Your task to perform on an android device: What's the news in Trinidad and Tobago? Image 0: 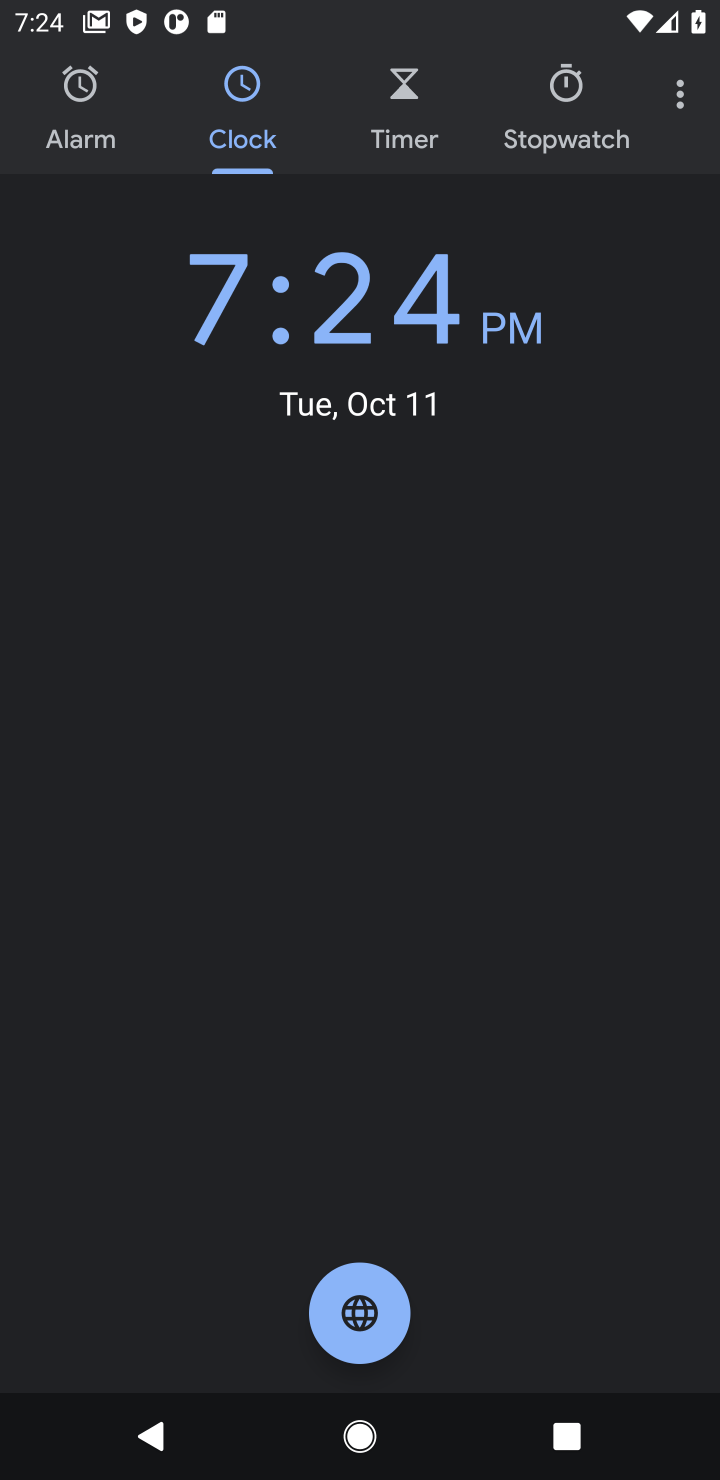
Step 0: press home button
Your task to perform on an android device: What's the news in Trinidad and Tobago? Image 1: 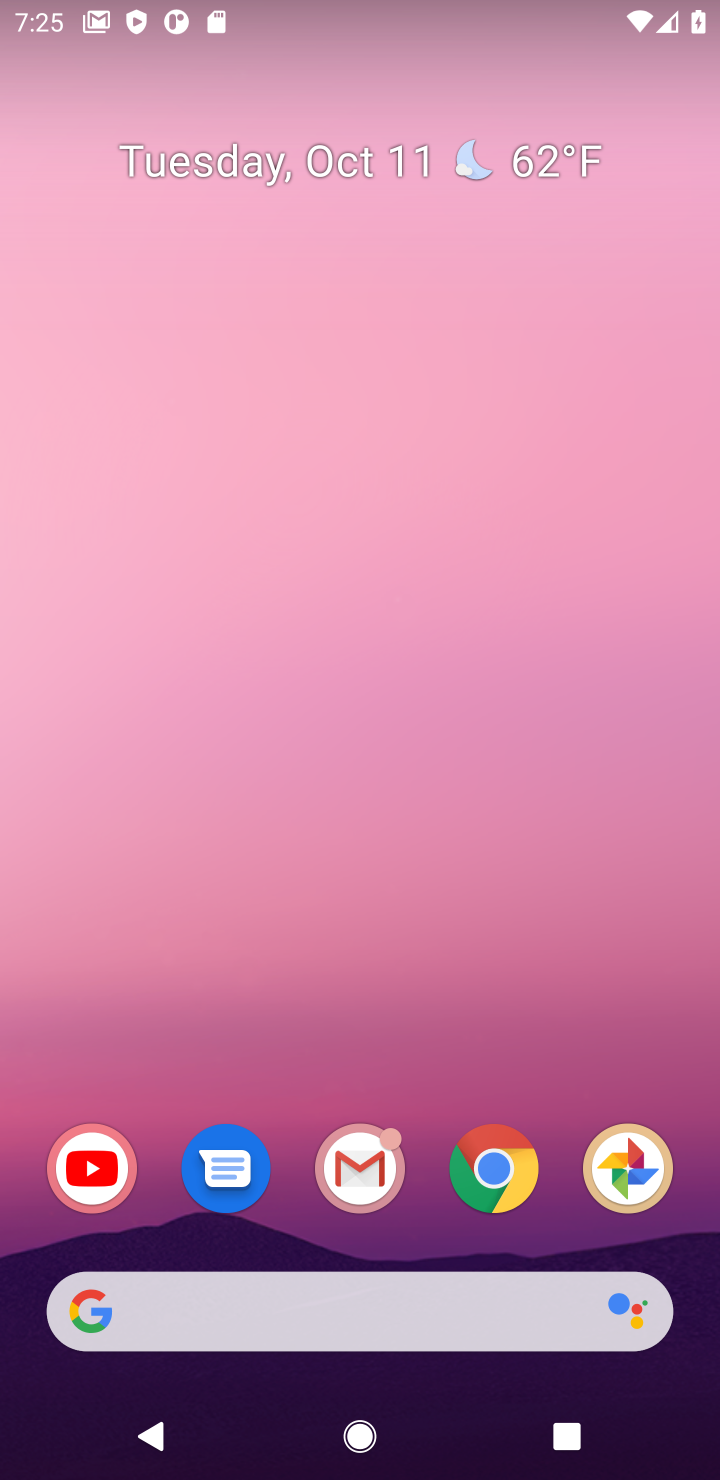
Step 1: click (512, 1194)
Your task to perform on an android device: What's the news in Trinidad and Tobago? Image 2: 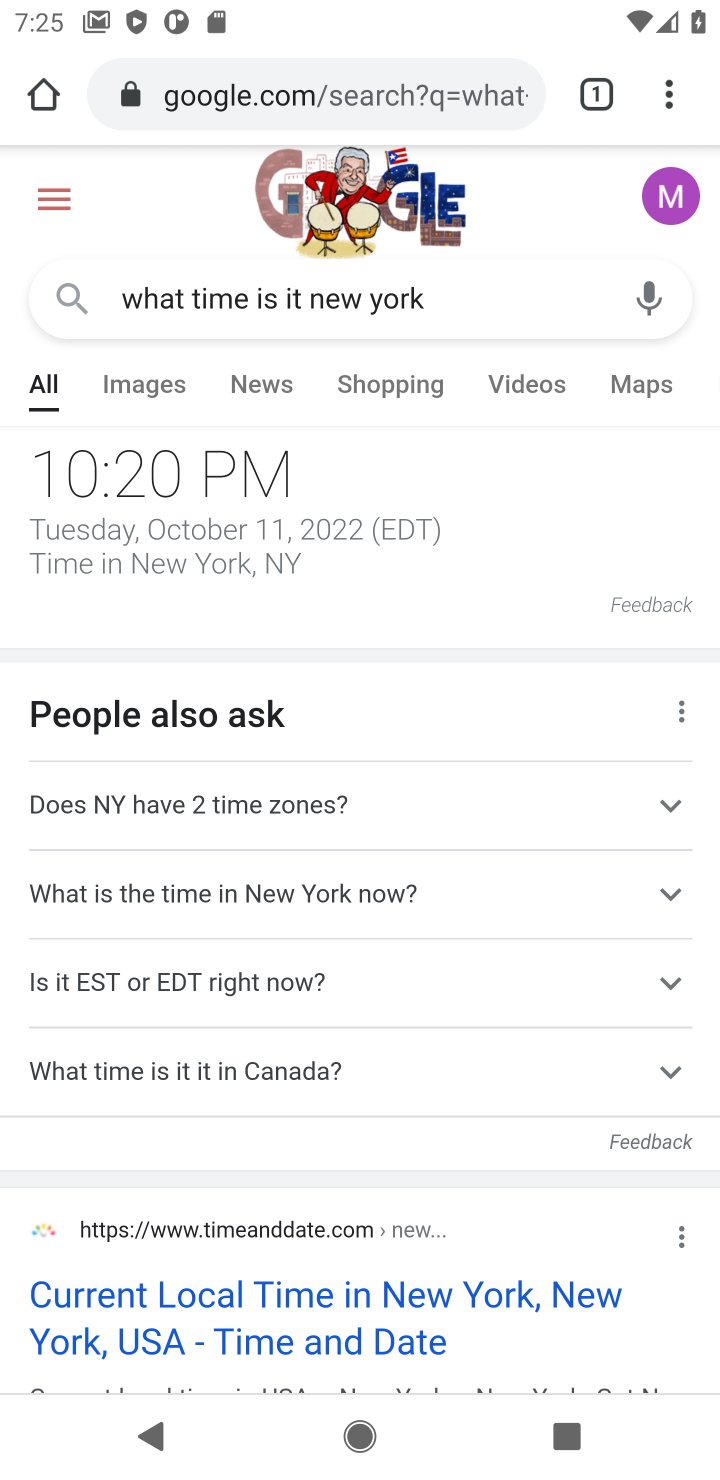
Step 2: click (294, 106)
Your task to perform on an android device: What's the news in Trinidad and Tobago? Image 3: 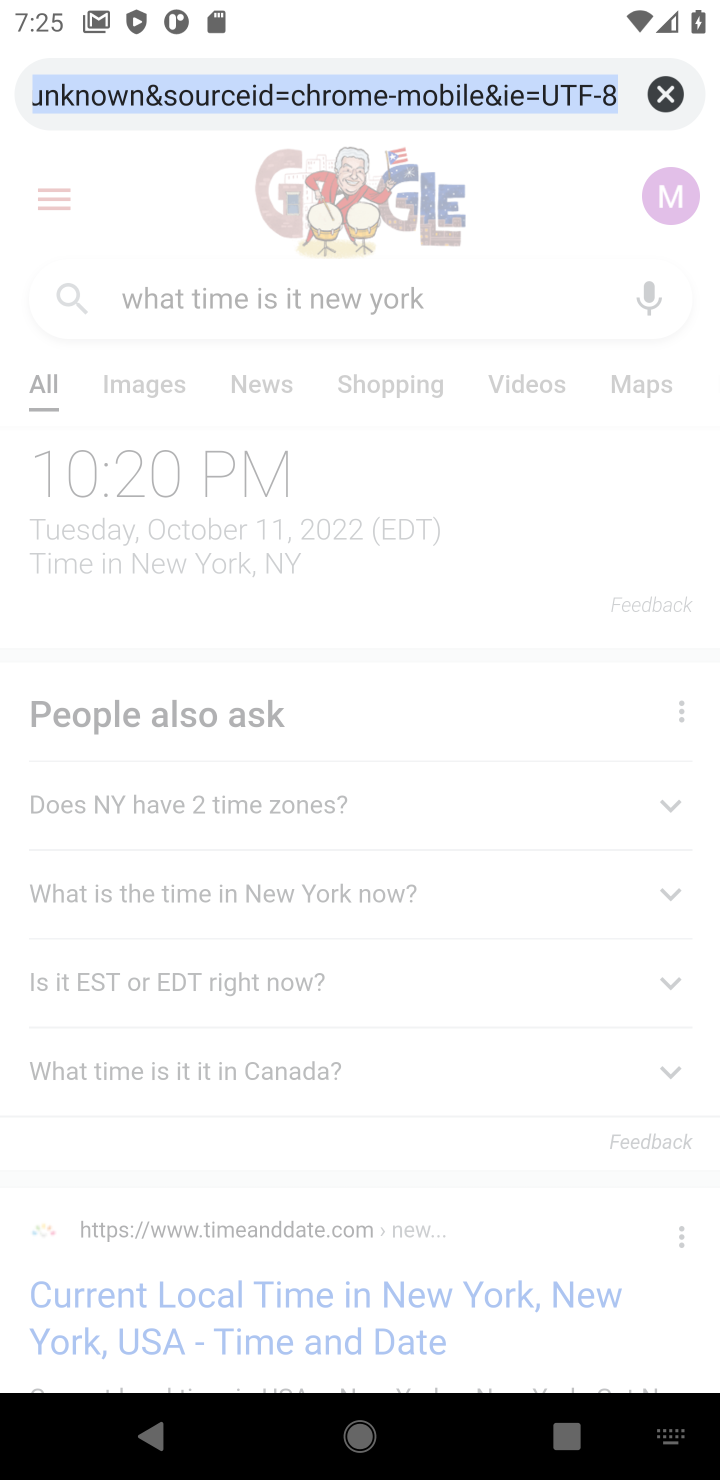
Step 3: click (668, 105)
Your task to perform on an android device: What's the news in Trinidad and Tobago? Image 4: 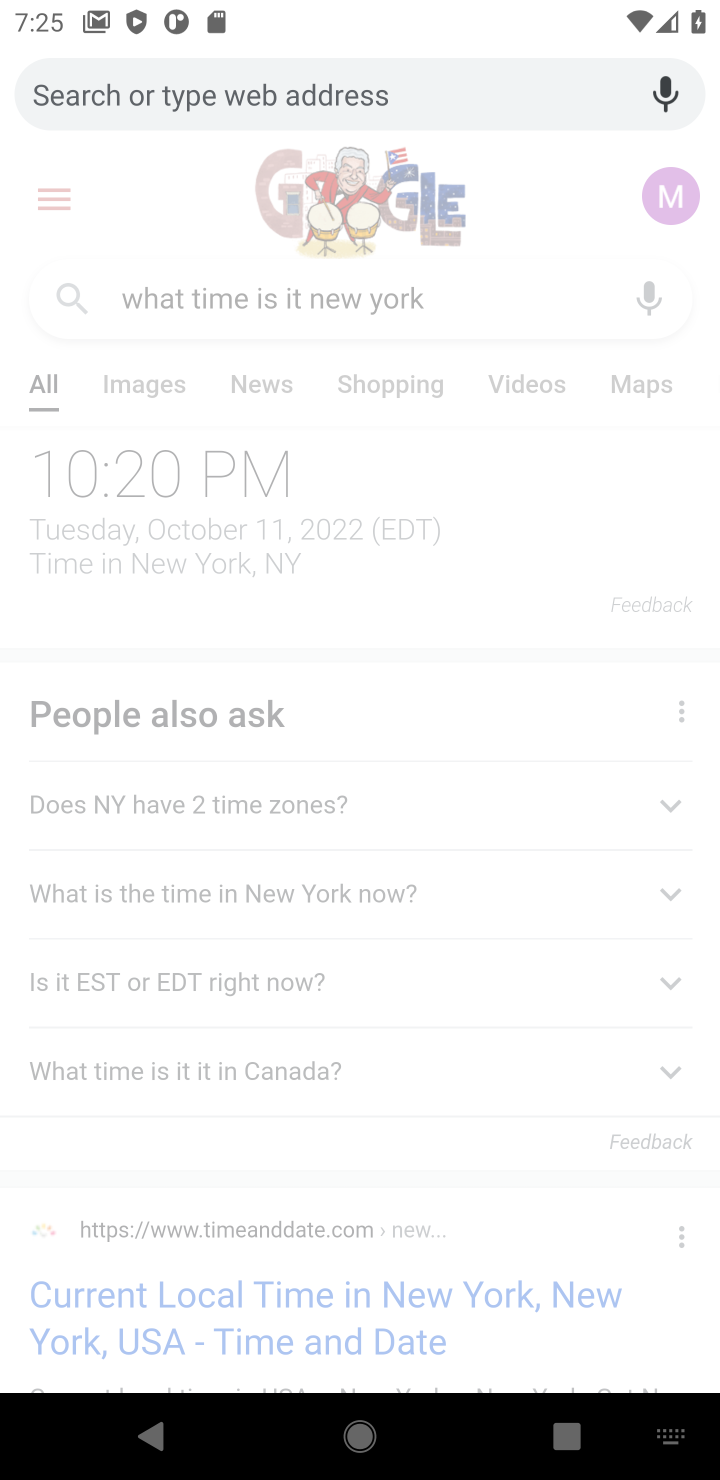
Step 4: type "whats the news in trinidad & tobago"
Your task to perform on an android device: What's the news in Trinidad and Tobago? Image 5: 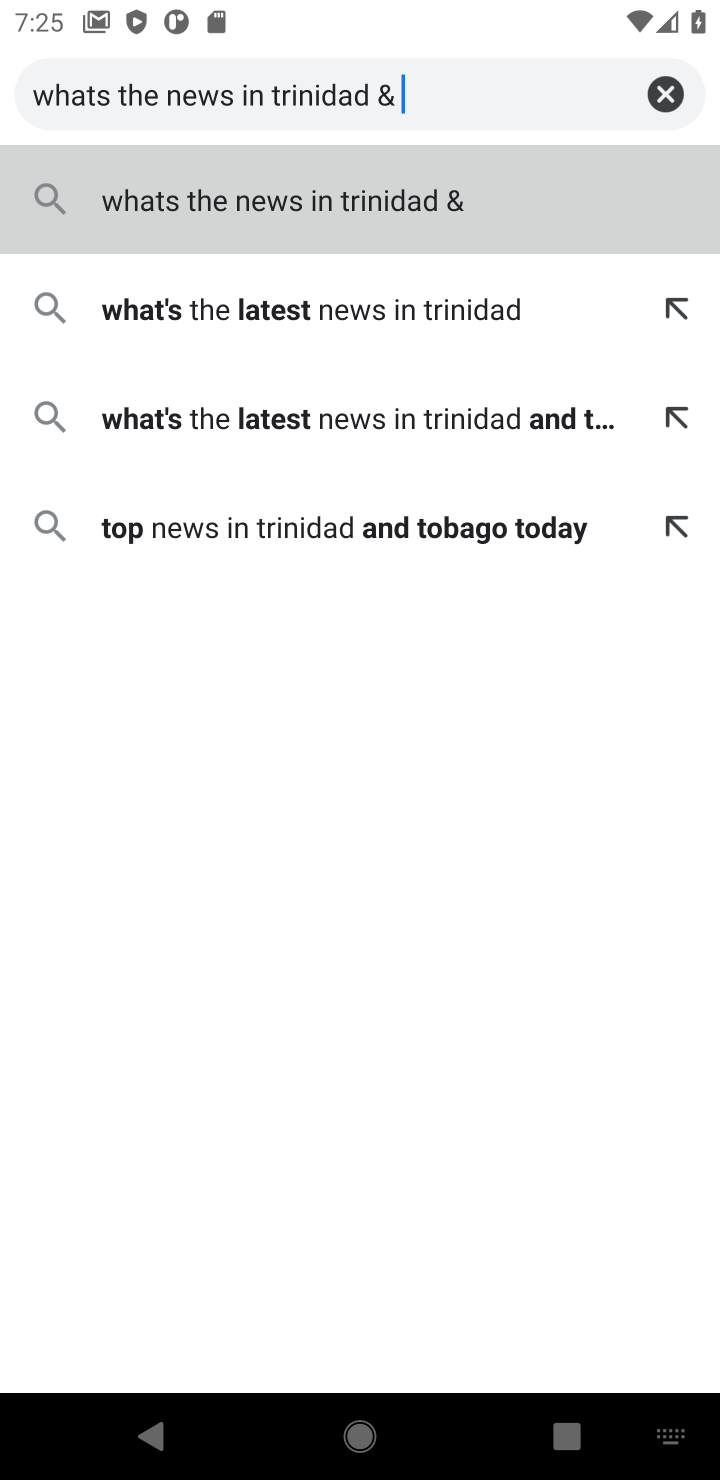
Step 5: click (393, 425)
Your task to perform on an android device: What's the news in Trinidad and Tobago? Image 6: 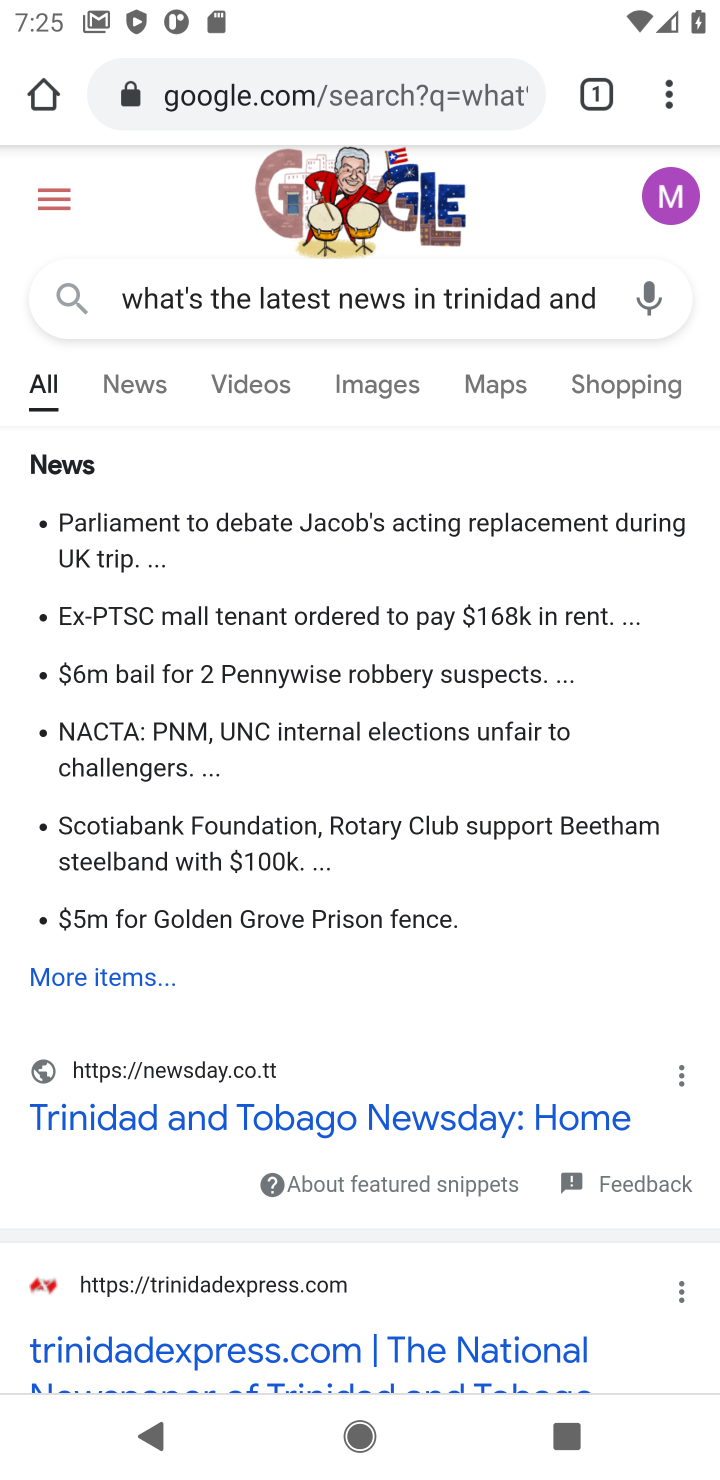
Step 6: drag from (435, 837) to (460, 528)
Your task to perform on an android device: What's the news in Trinidad and Tobago? Image 7: 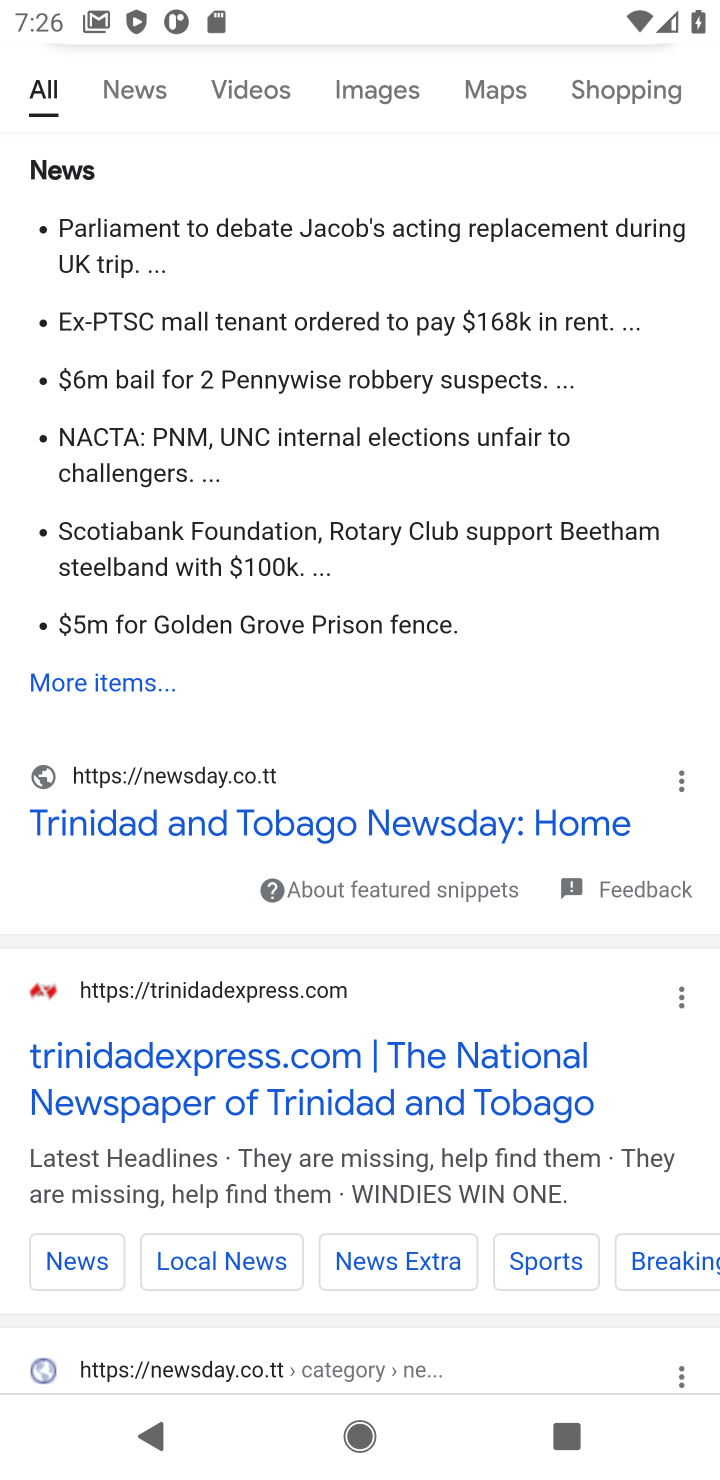
Step 7: click (295, 1062)
Your task to perform on an android device: What's the news in Trinidad and Tobago? Image 8: 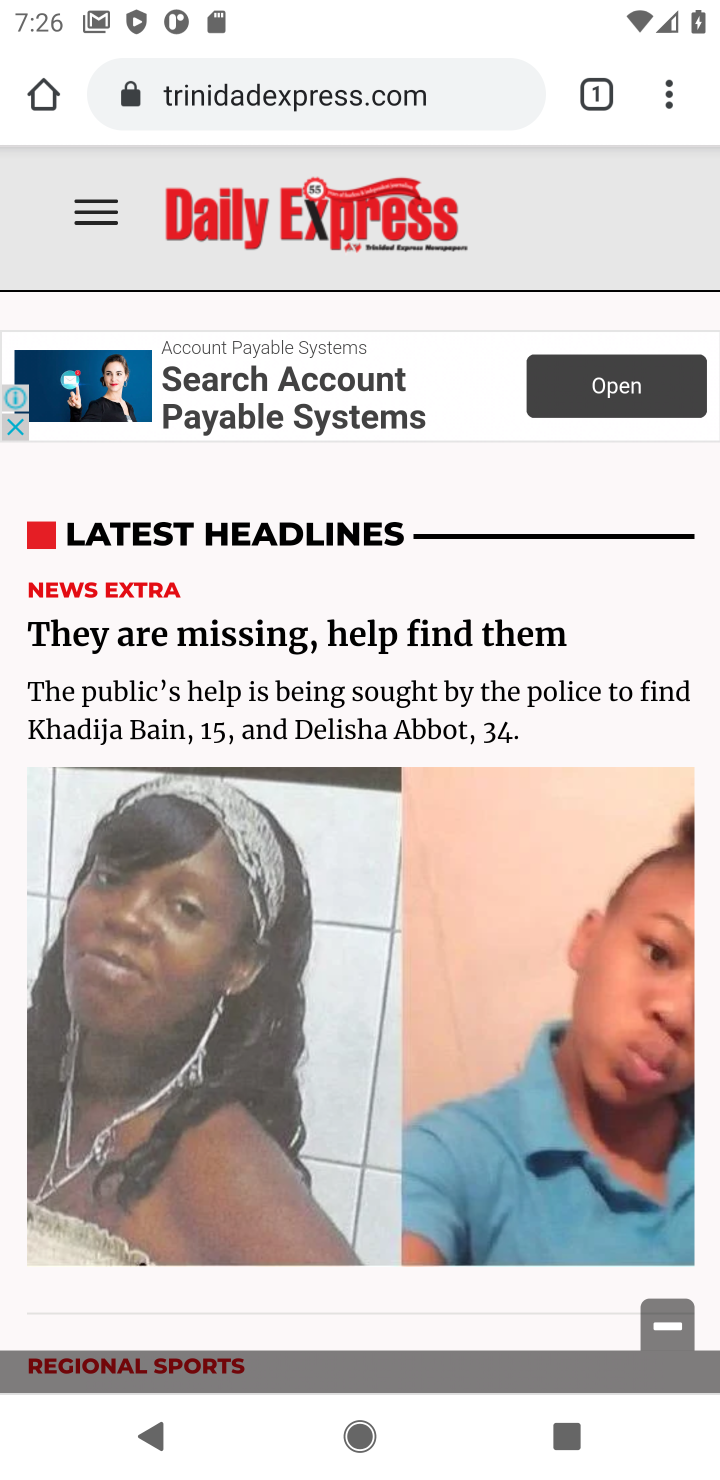
Step 8: drag from (292, 817) to (311, 691)
Your task to perform on an android device: What's the news in Trinidad and Tobago? Image 9: 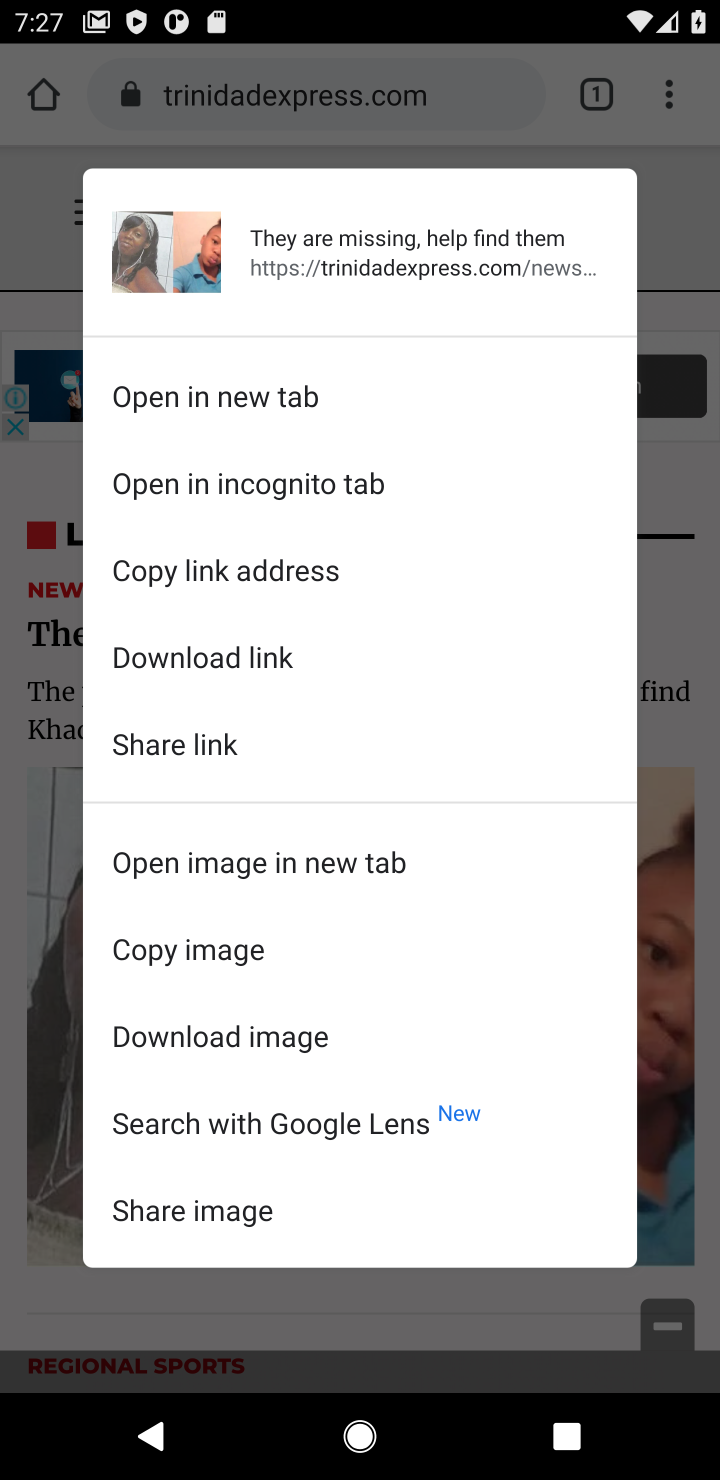
Step 9: drag from (719, 855) to (703, 513)
Your task to perform on an android device: What's the news in Trinidad and Tobago? Image 10: 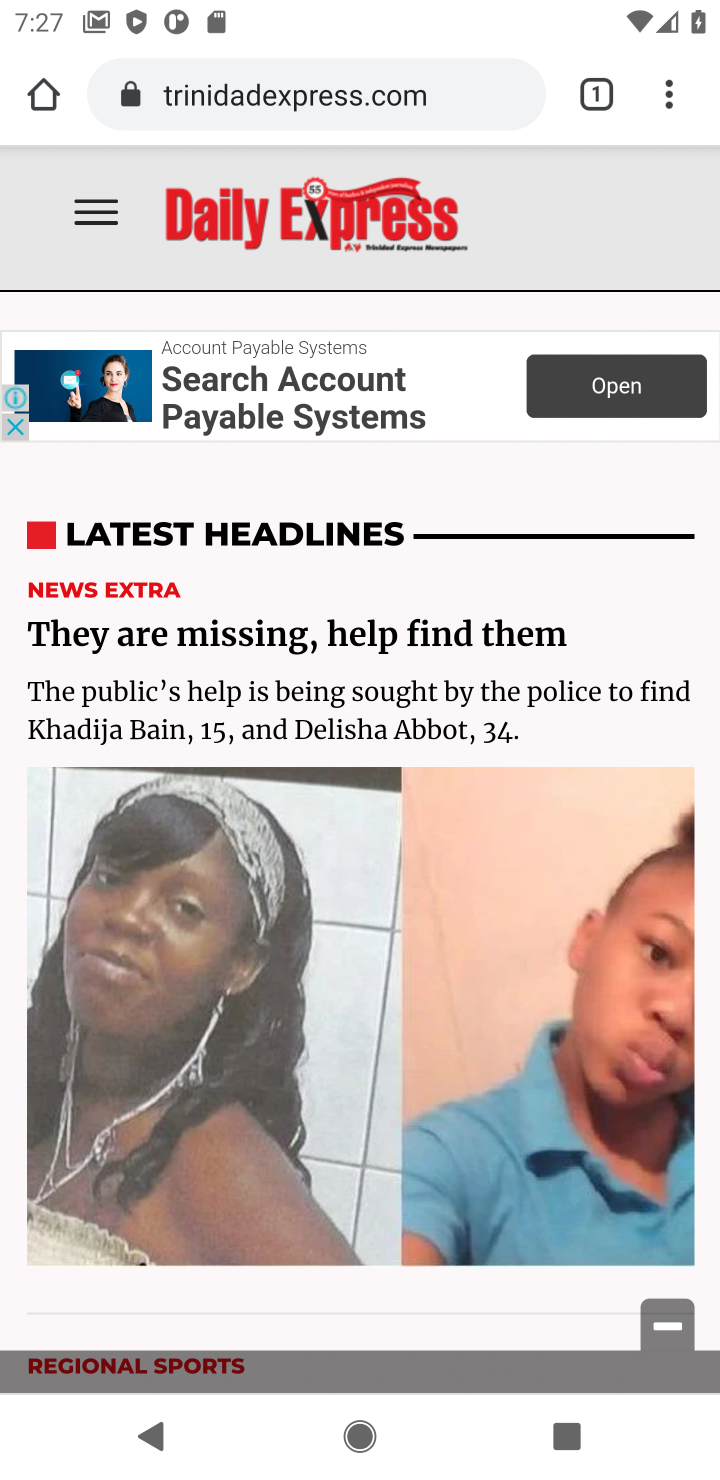
Step 10: drag from (512, 548) to (516, 207)
Your task to perform on an android device: What's the news in Trinidad and Tobago? Image 11: 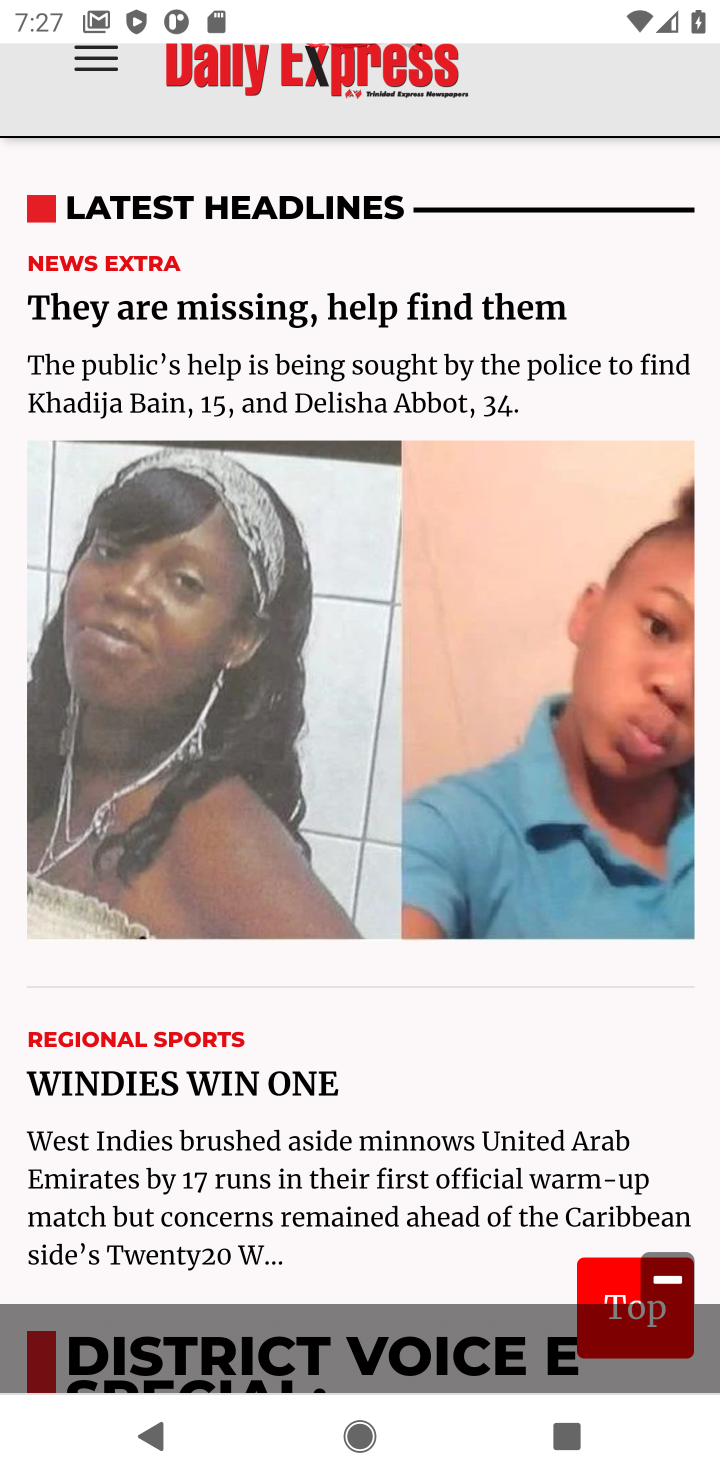
Step 11: drag from (409, 1004) to (421, 295)
Your task to perform on an android device: What's the news in Trinidad and Tobago? Image 12: 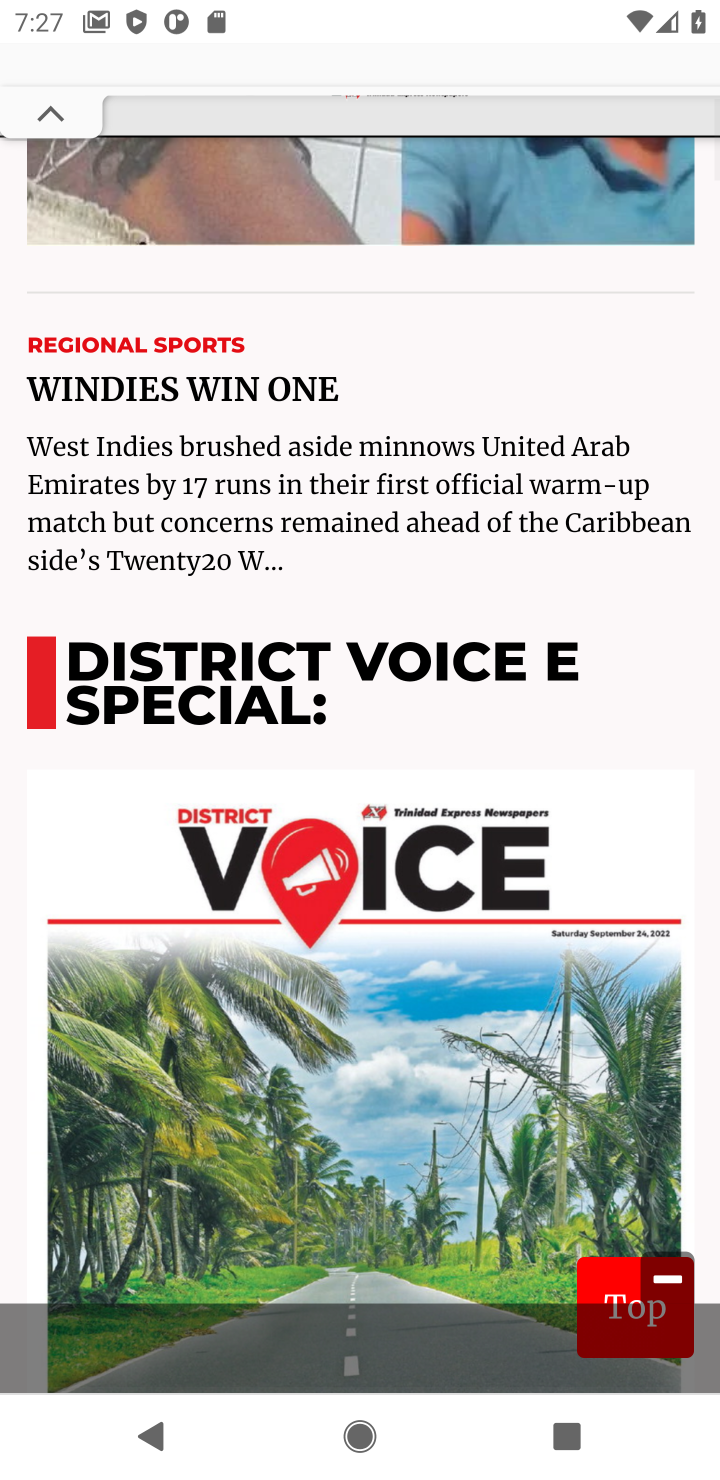
Step 12: drag from (366, 873) to (397, 526)
Your task to perform on an android device: What's the news in Trinidad and Tobago? Image 13: 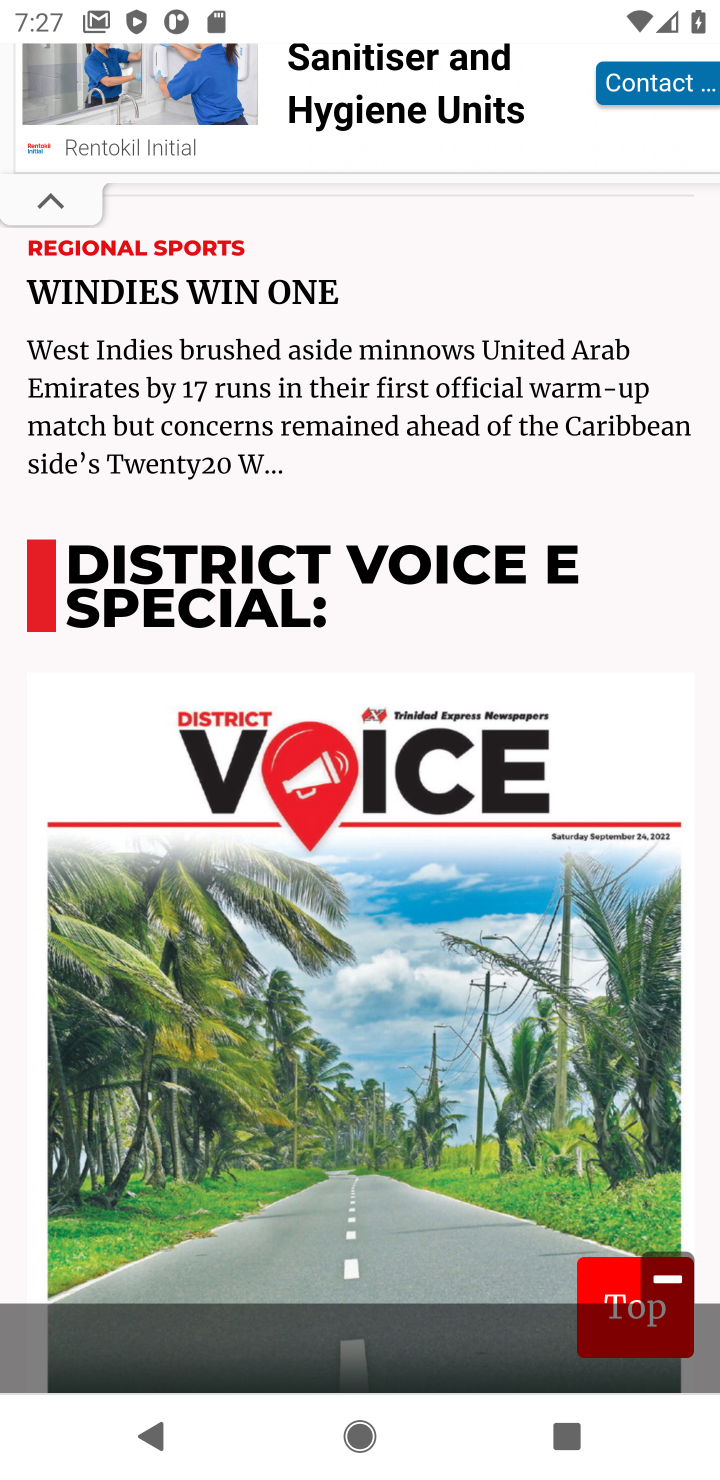
Step 13: drag from (234, 873) to (276, 702)
Your task to perform on an android device: What's the news in Trinidad and Tobago? Image 14: 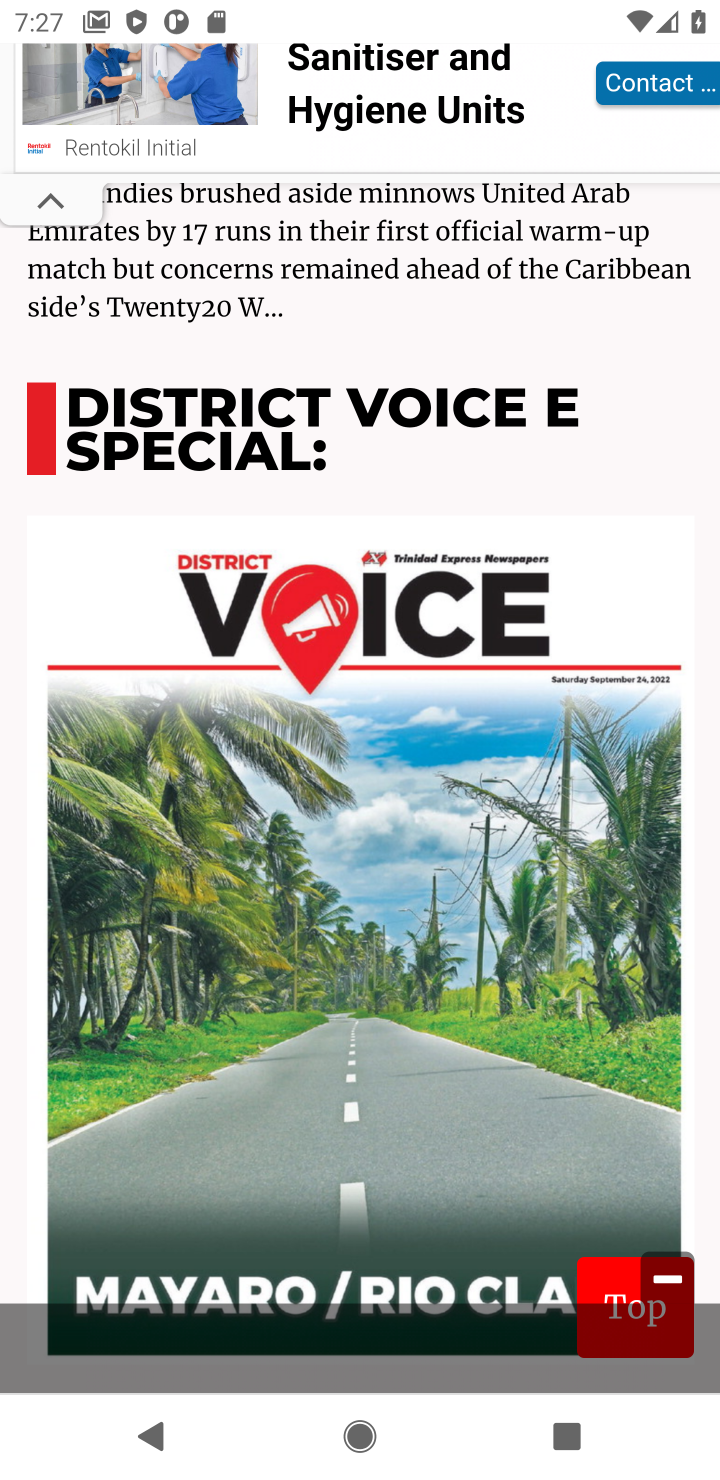
Step 14: drag from (145, 928) to (197, 692)
Your task to perform on an android device: What's the news in Trinidad and Tobago? Image 15: 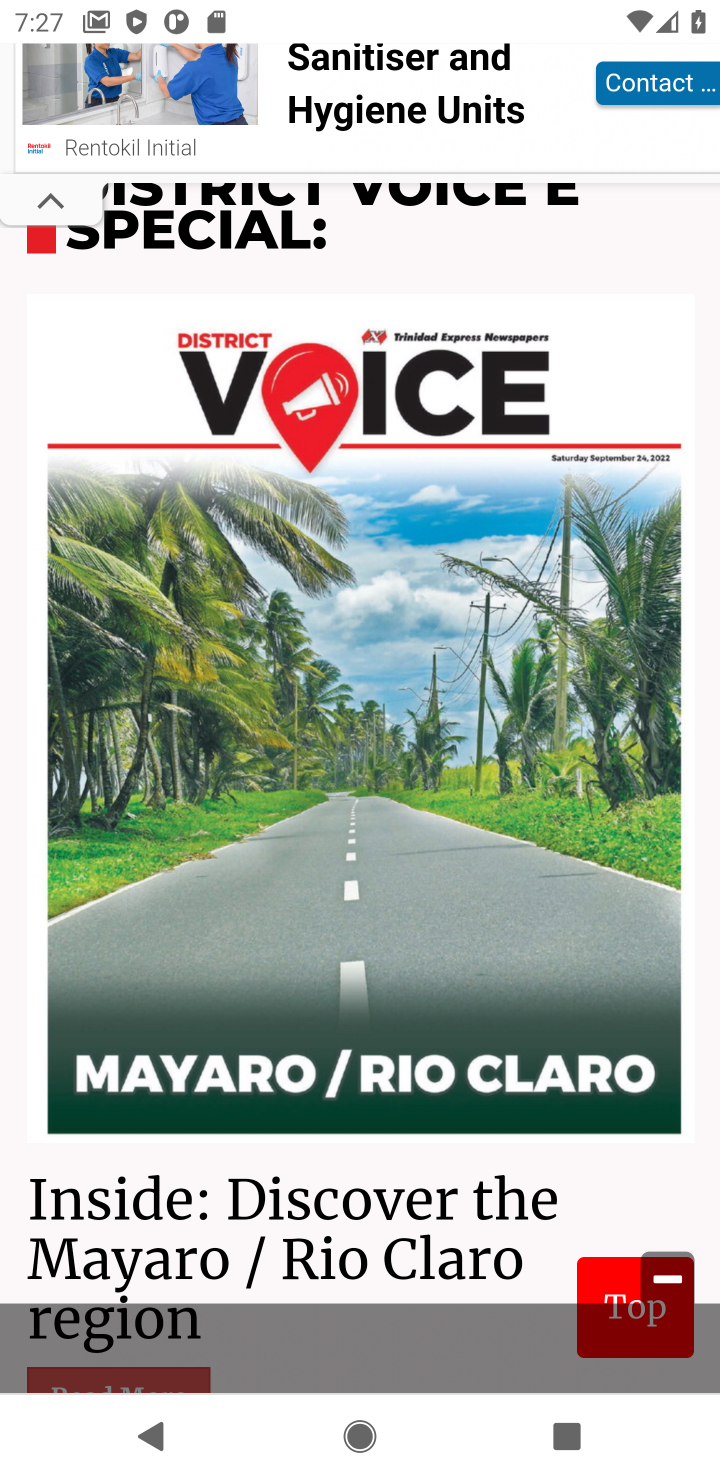
Step 15: drag from (357, 852) to (435, 617)
Your task to perform on an android device: What's the news in Trinidad and Tobago? Image 16: 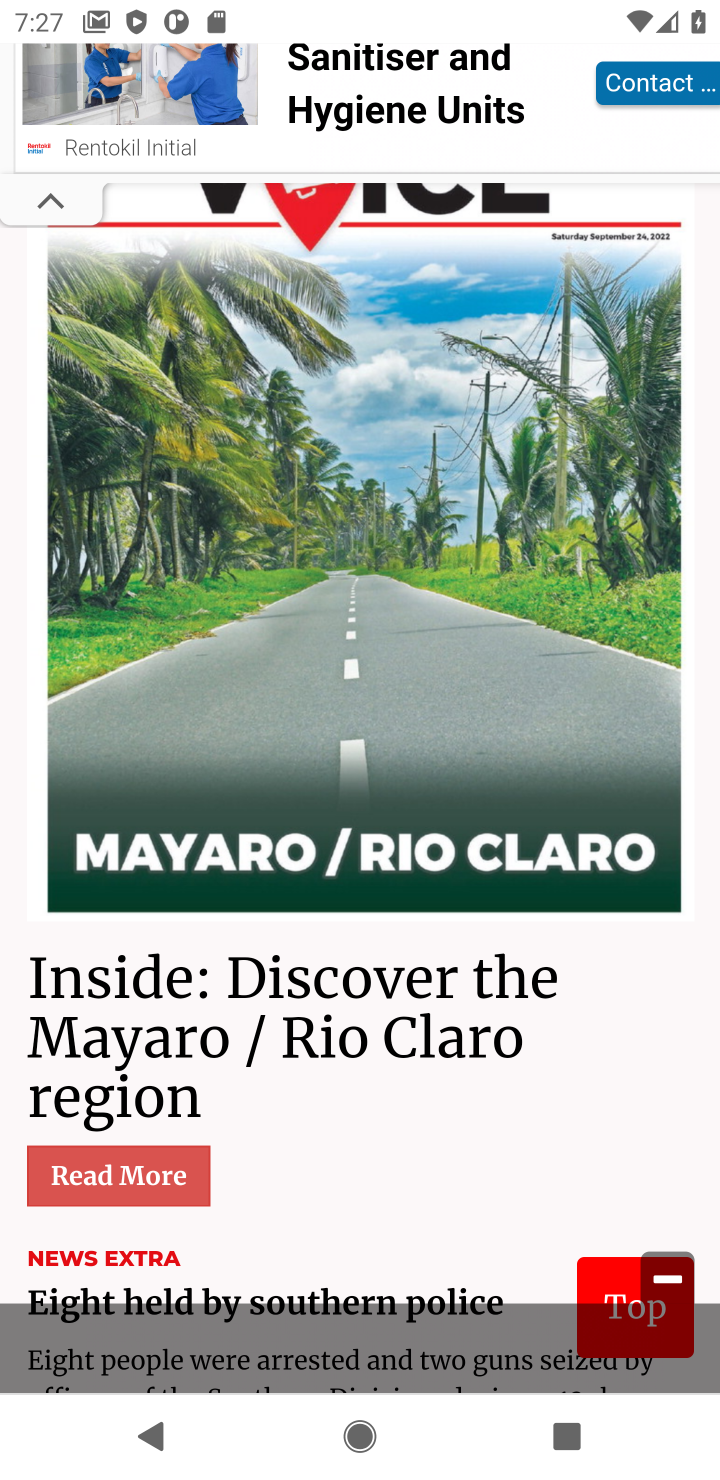
Step 16: drag from (382, 893) to (467, 627)
Your task to perform on an android device: What's the news in Trinidad and Tobago? Image 17: 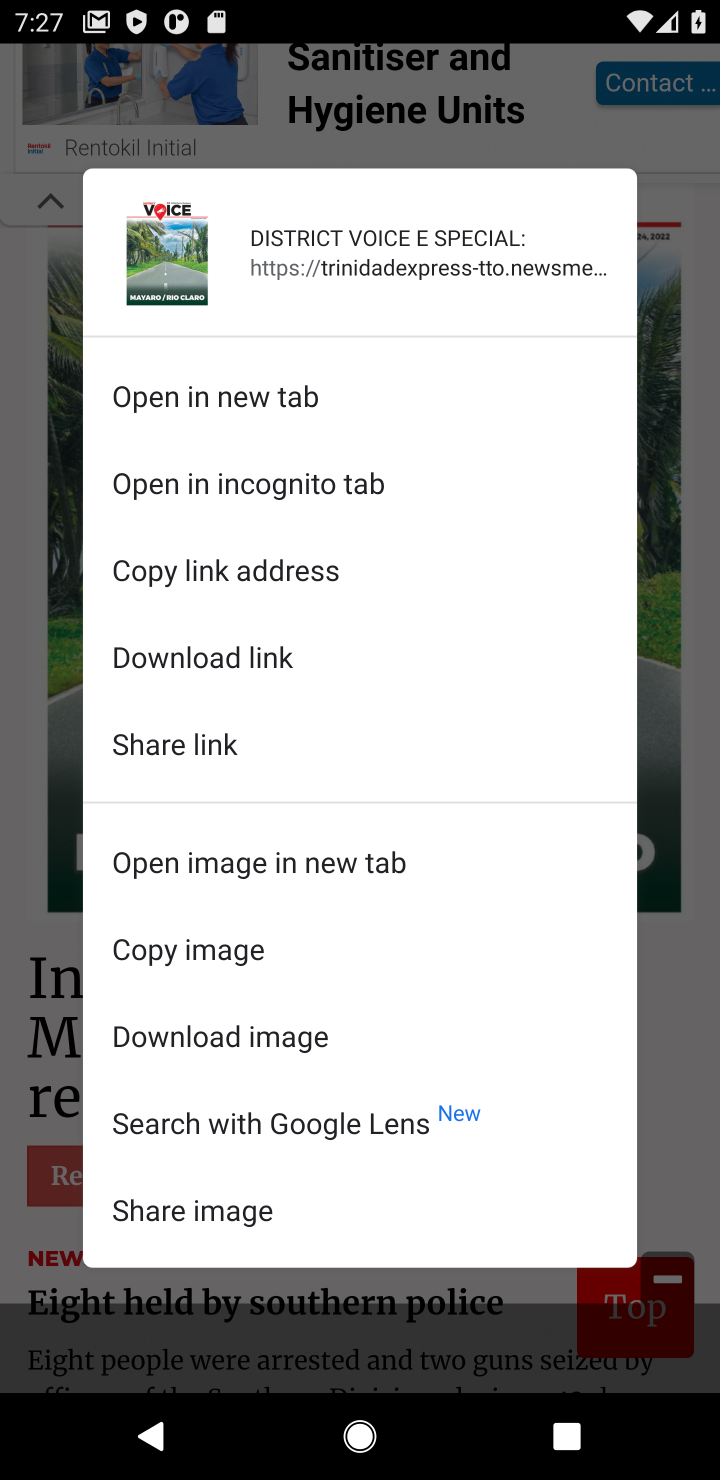
Step 17: drag from (658, 1003) to (700, 430)
Your task to perform on an android device: What's the news in Trinidad and Tobago? Image 18: 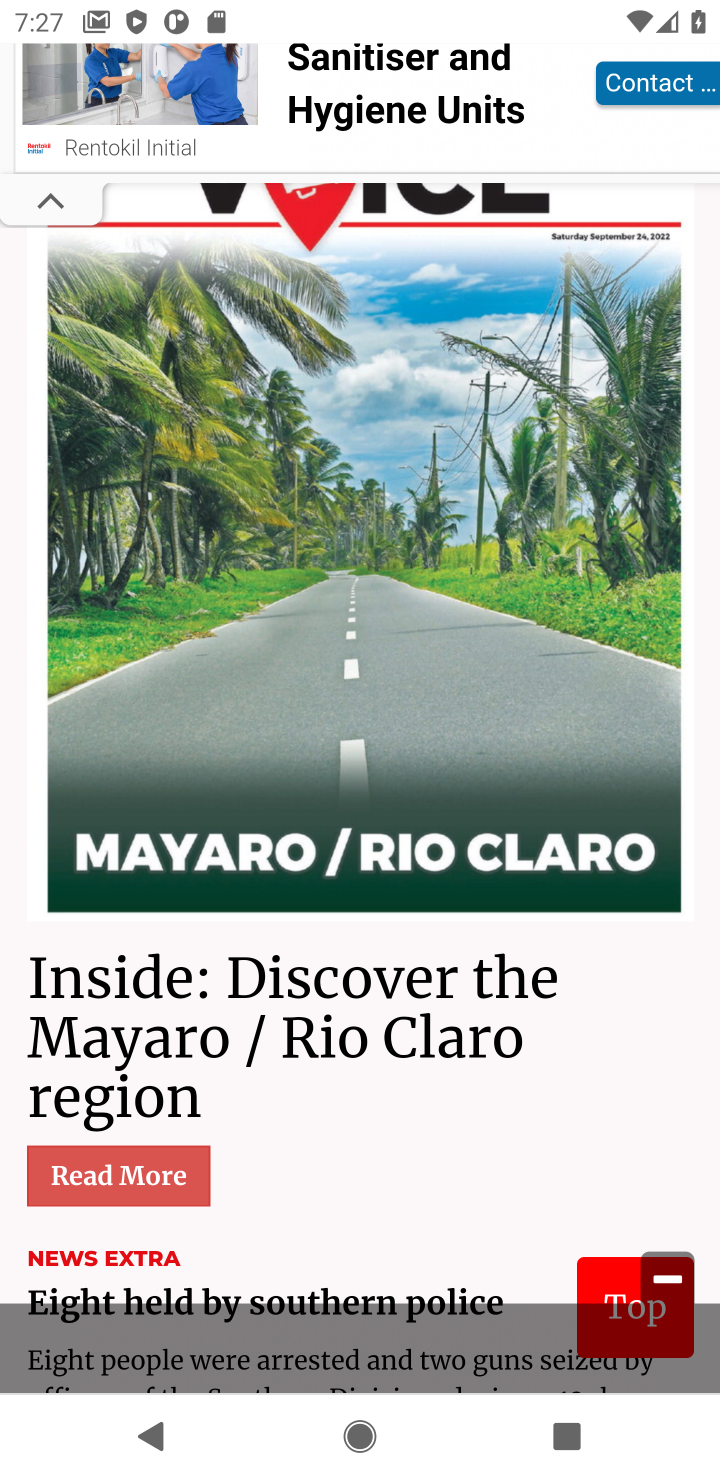
Step 18: drag from (589, 1067) to (583, 495)
Your task to perform on an android device: What's the news in Trinidad and Tobago? Image 19: 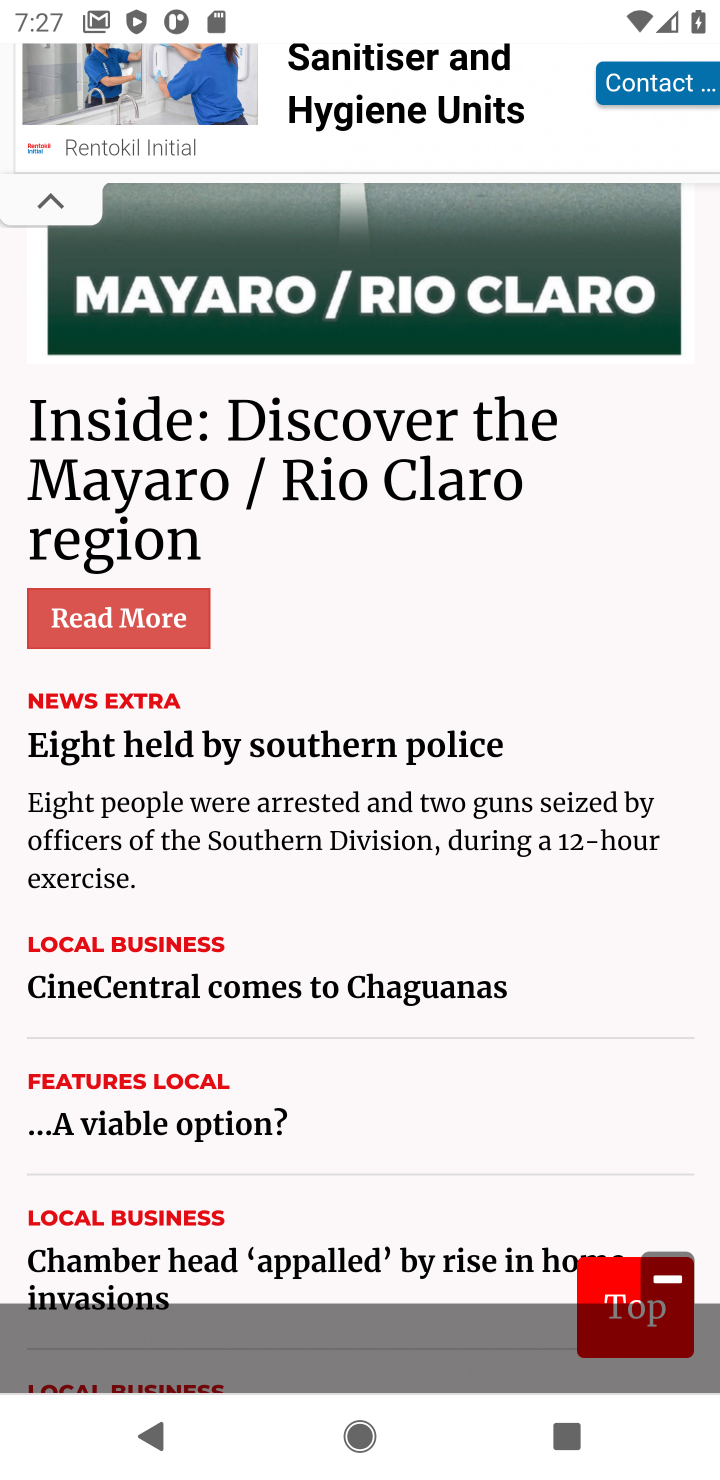
Step 19: click (468, 554)
Your task to perform on an android device: What's the news in Trinidad and Tobago? Image 20: 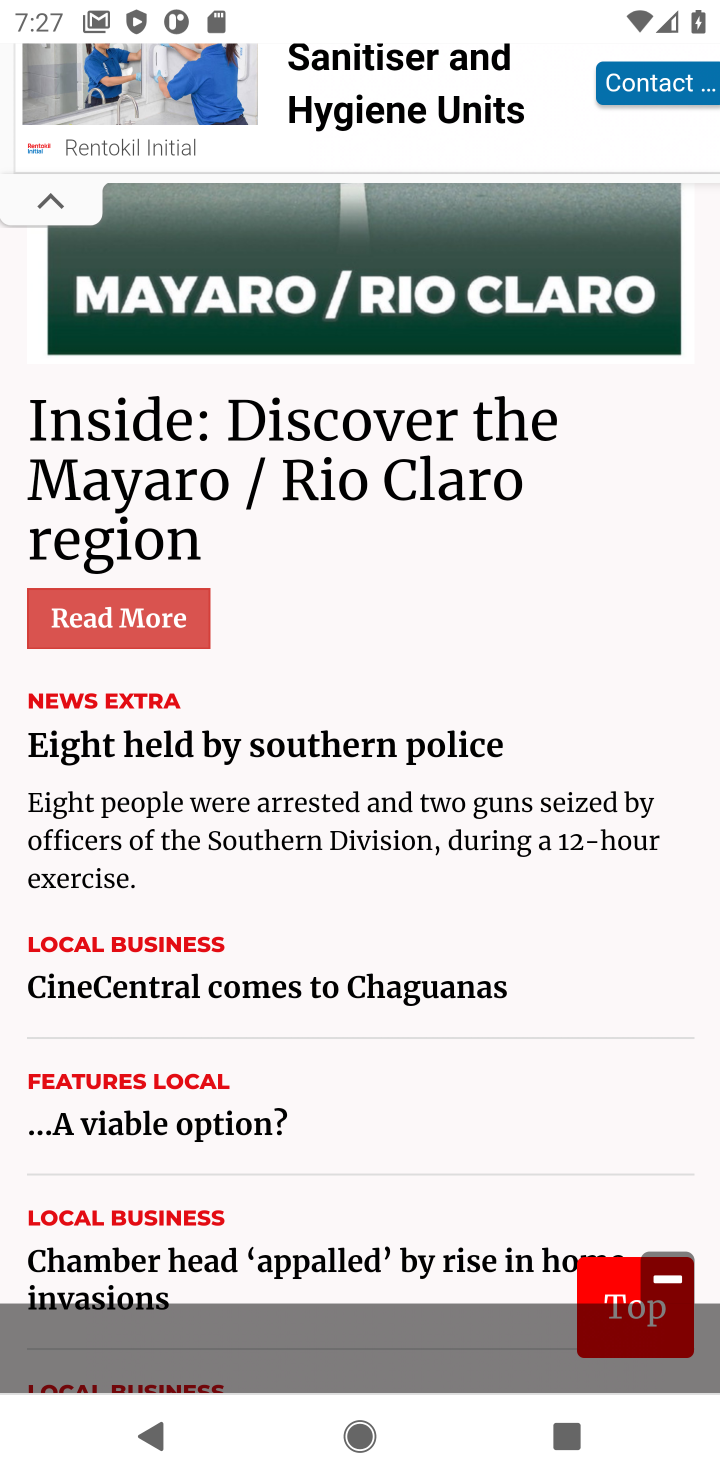
Step 20: task complete